Your task to perform on an android device: Check the weather Image 0: 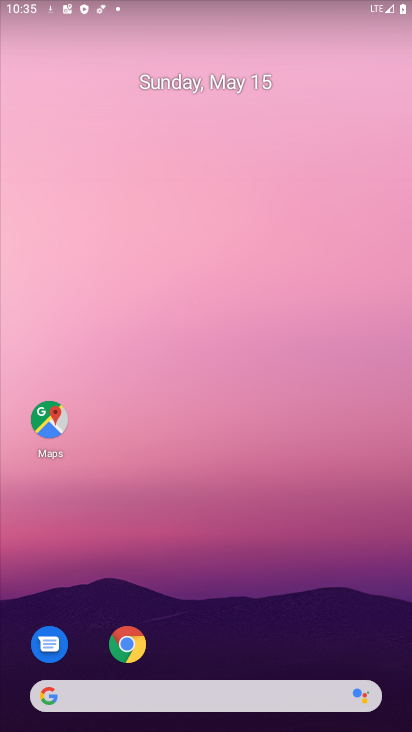
Step 0: drag from (286, 668) to (237, 185)
Your task to perform on an android device: Check the weather Image 1: 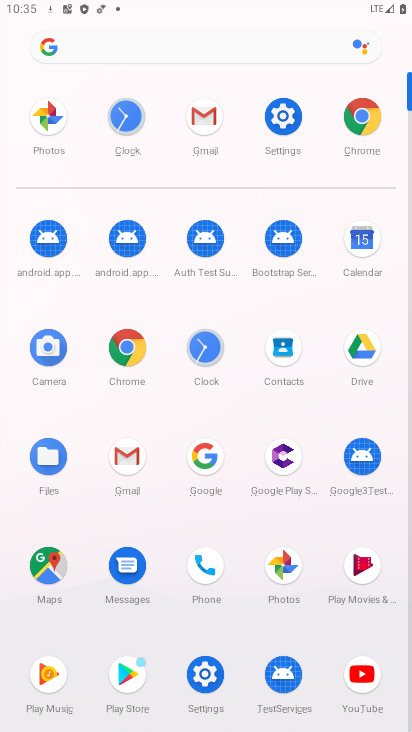
Step 1: click (147, 58)
Your task to perform on an android device: Check the weather Image 2: 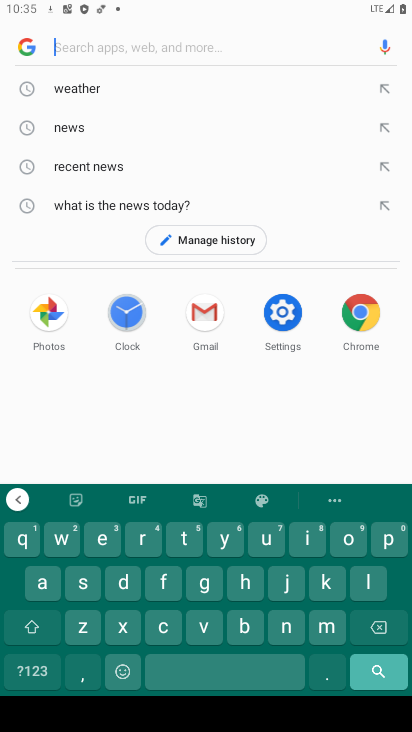
Step 2: click (123, 83)
Your task to perform on an android device: Check the weather Image 3: 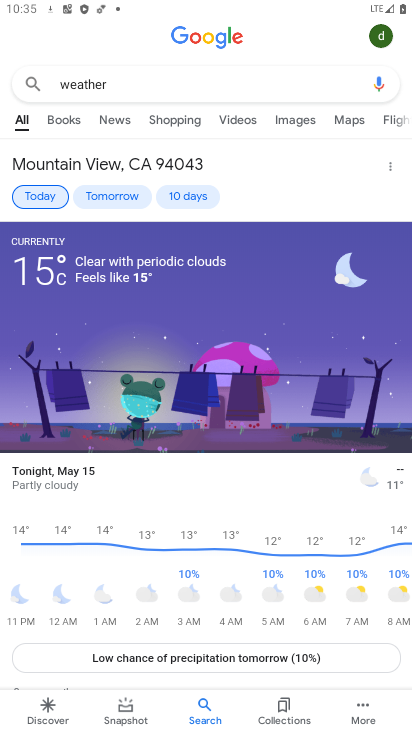
Step 3: task complete